Your task to perform on an android device: clear all cookies in the chrome app Image 0: 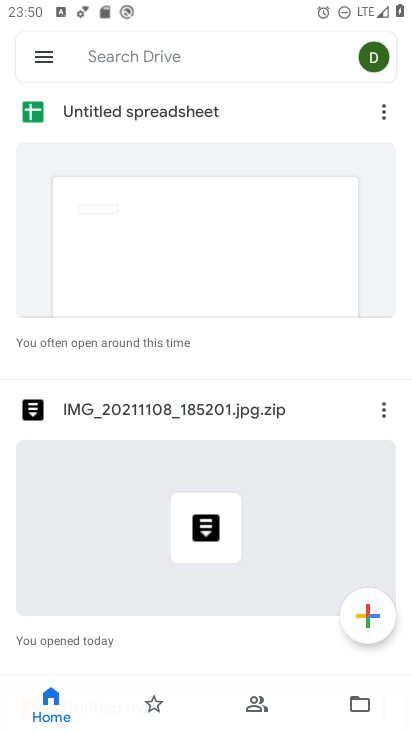
Step 0: press home button
Your task to perform on an android device: clear all cookies in the chrome app Image 1: 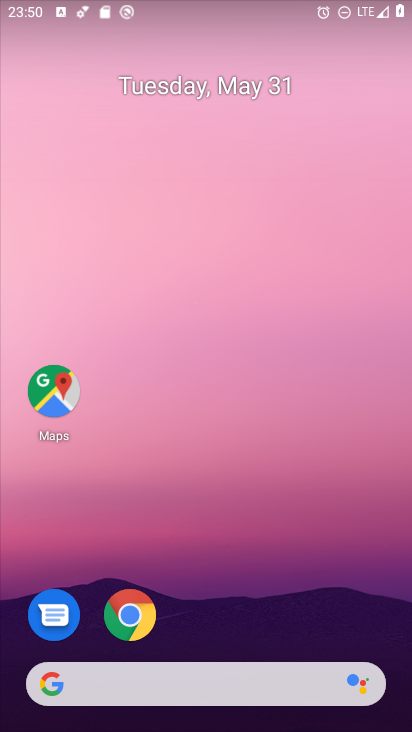
Step 1: click (131, 614)
Your task to perform on an android device: clear all cookies in the chrome app Image 2: 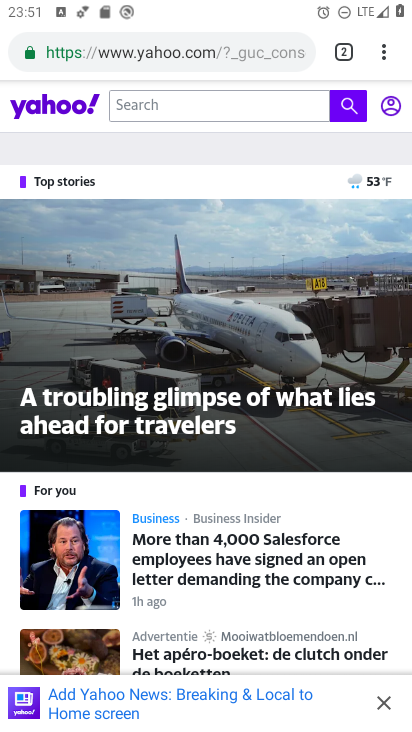
Step 2: click (385, 56)
Your task to perform on an android device: clear all cookies in the chrome app Image 3: 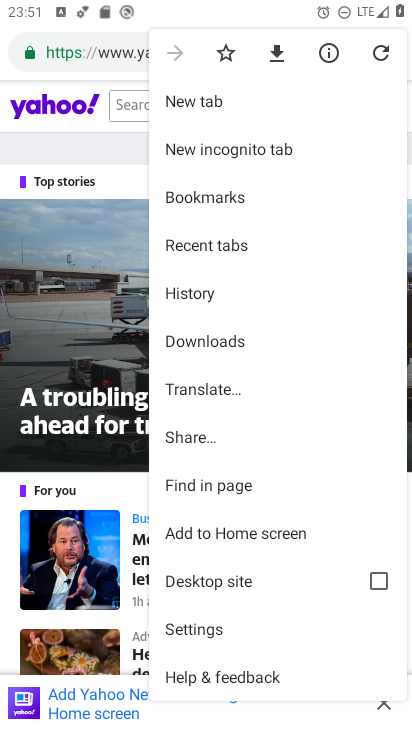
Step 3: click (198, 289)
Your task to perform on an android device: clear all cookies in the chrome app Image 4: 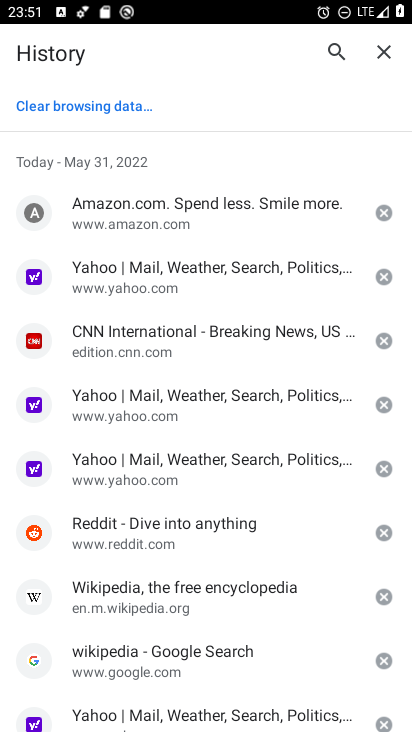
Step 4: click (92, 104)
Your task to perform on an android device: clear all cookies in the chrome app Image 5: 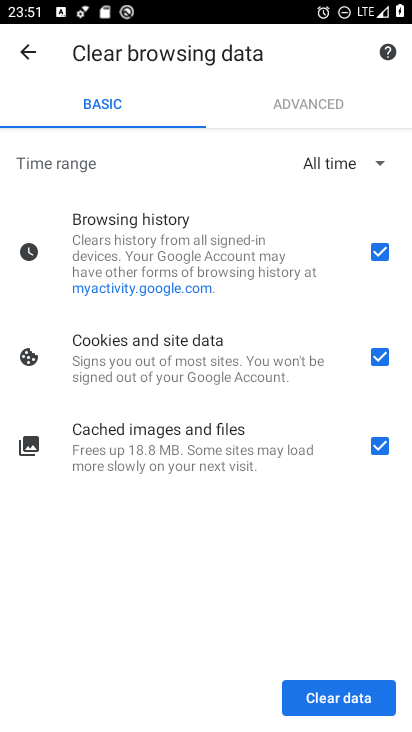
Step 5: click (376, 245)
Your task to perform on an android device: clear all cookies in the chrome app Image 6: 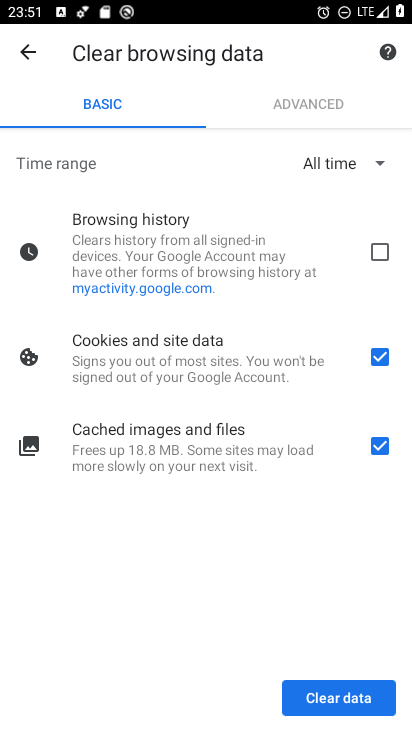
Step 6: click (378, 446)
Your task to perform on an android device: clear all cookies in the chrome app Image 7: 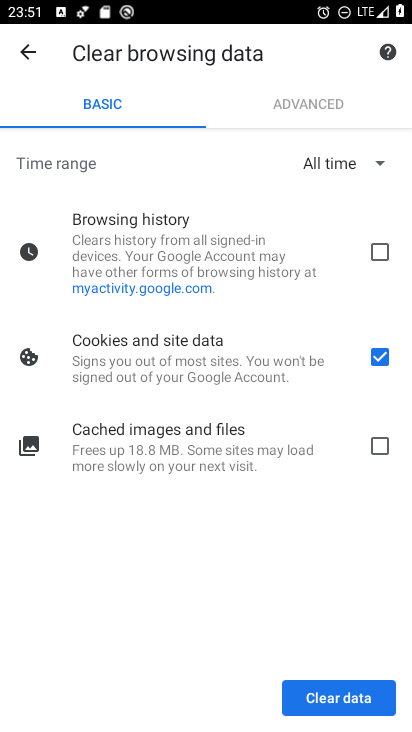
Step 7: click (333, 700)
Your task to perform on an android device: clear all cookies in the chrome app Image 8: 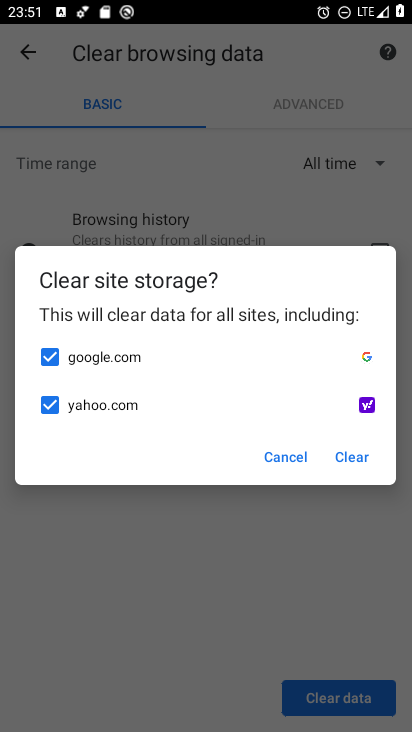
Step 8: click (354, 453)
Your task to perform on an android device: clear all cookies in the chrome app Image 9: 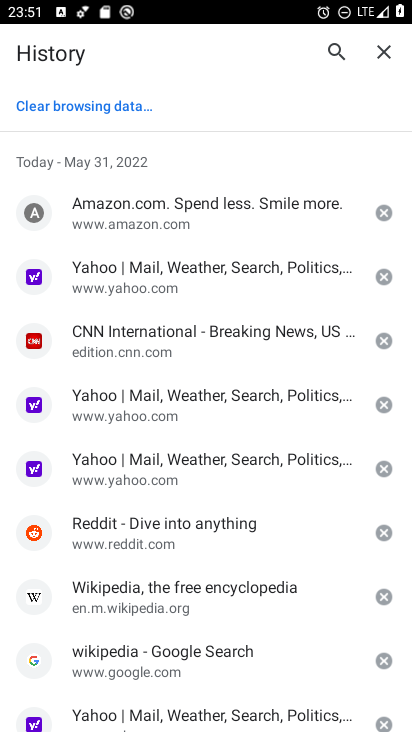
Step 9: task complete